Your task to perform on an android device: open app "Life360: Find Family & Friends" (install if not already installed) Image 0: 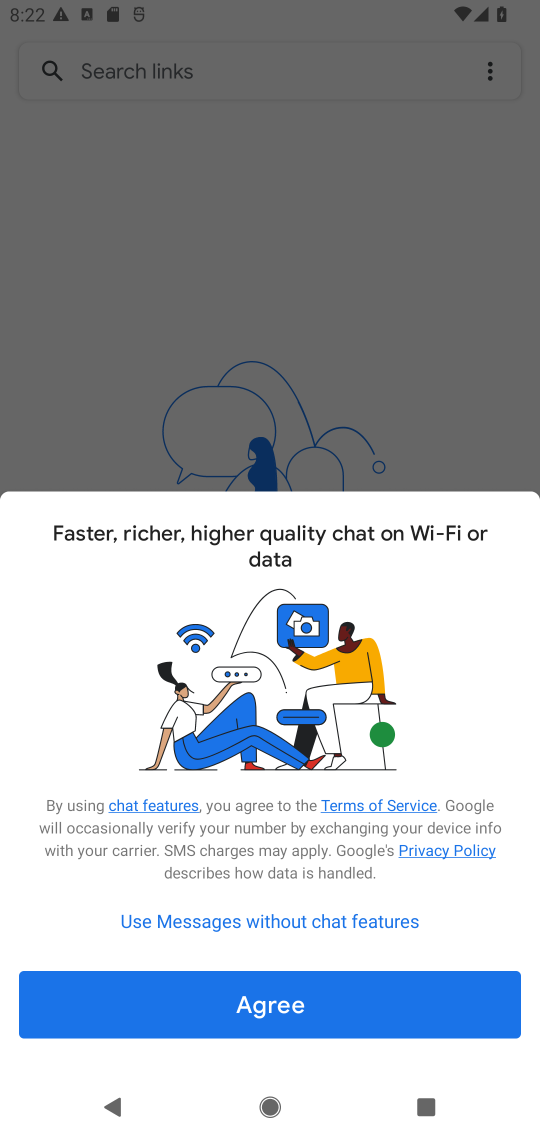
Step 0: press home button
Your task to perform on an android device: open app "Life360: Find Family & Friends" (install if not already installed) Image 1: 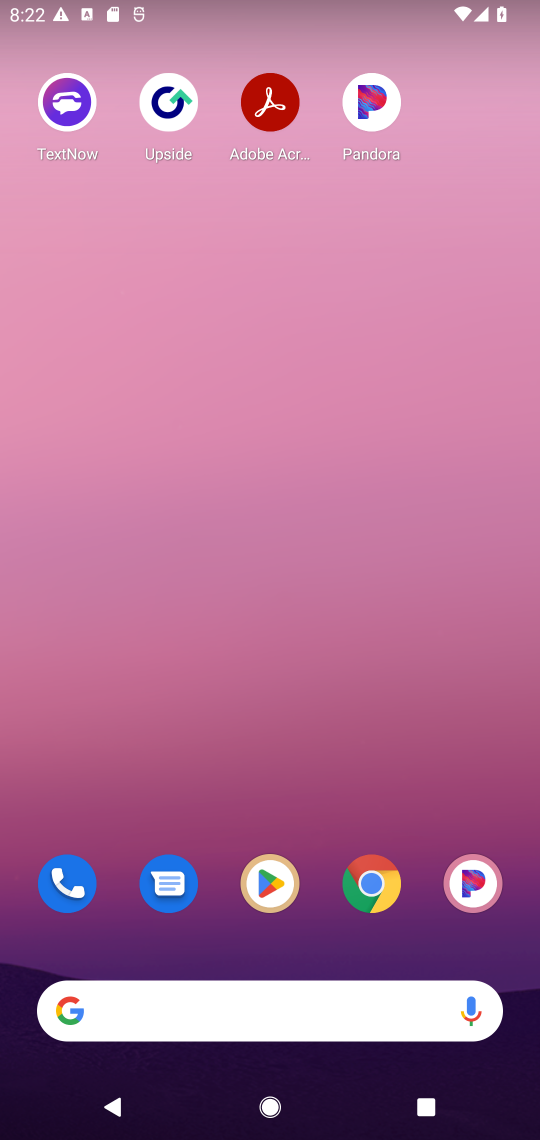
Step 1: drag from (324, 969) to (306, 210)
Your task to perform on an android device: open app "Life360: Find Family & Friends" (install if not already installed) Image 2: 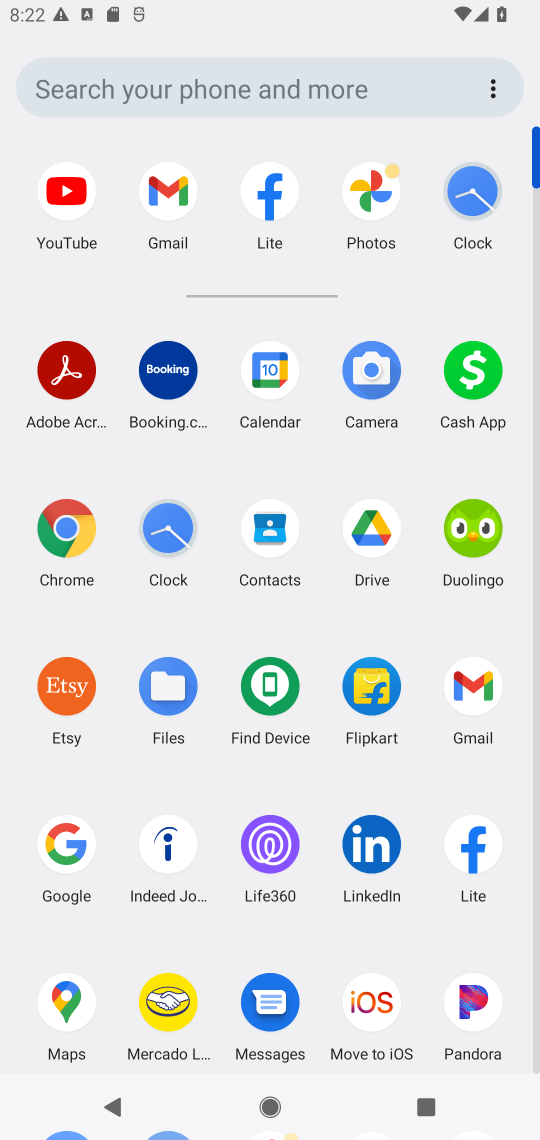
Step 2: drag from (300, 948) to (300, 439)
Your task to perform on an android device: open app "Life360: Find Family & Friends" (install if not already installed) Image 3: 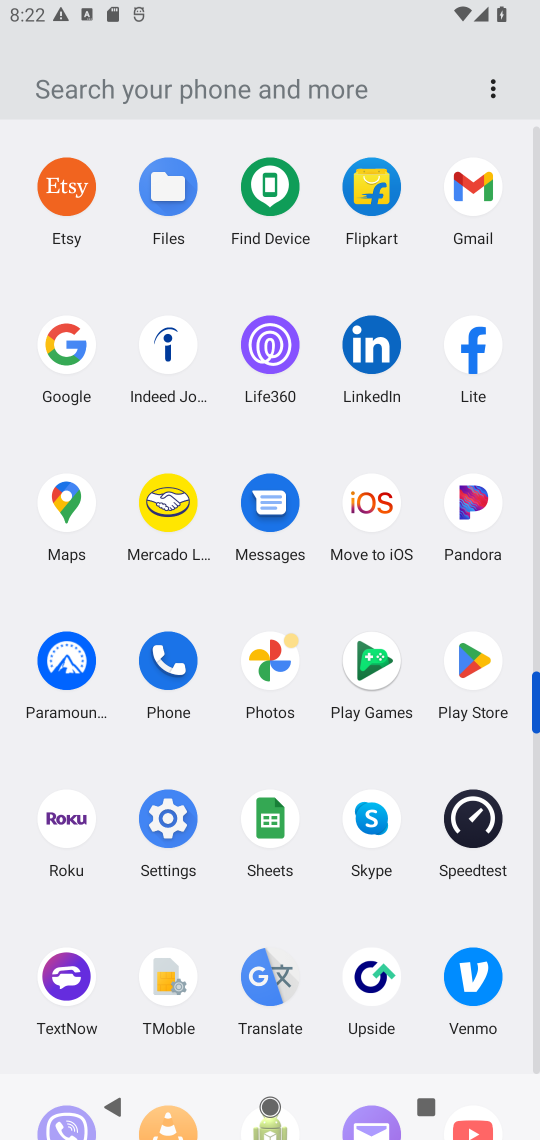
Step 3: click (470, 653)
Your task to perform on an android device: open app "Life360: Find Family & Friends" (install if not already installed) Image 4: 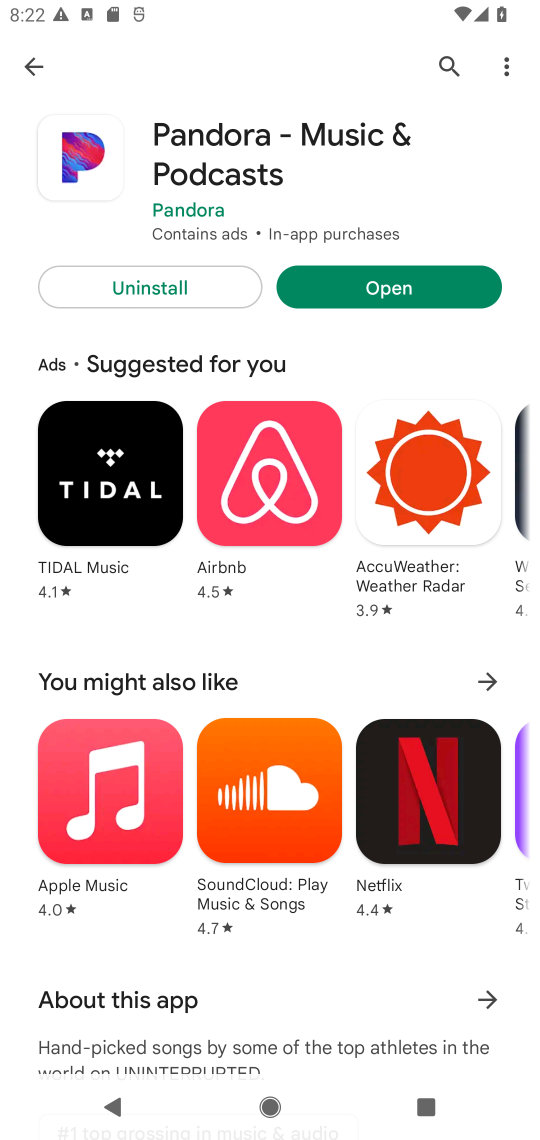
Step 4: click (441, 53)
Your task to perform on an android device: open app "Life360: Find Family & Friends" (install if not already installed) Image 5: 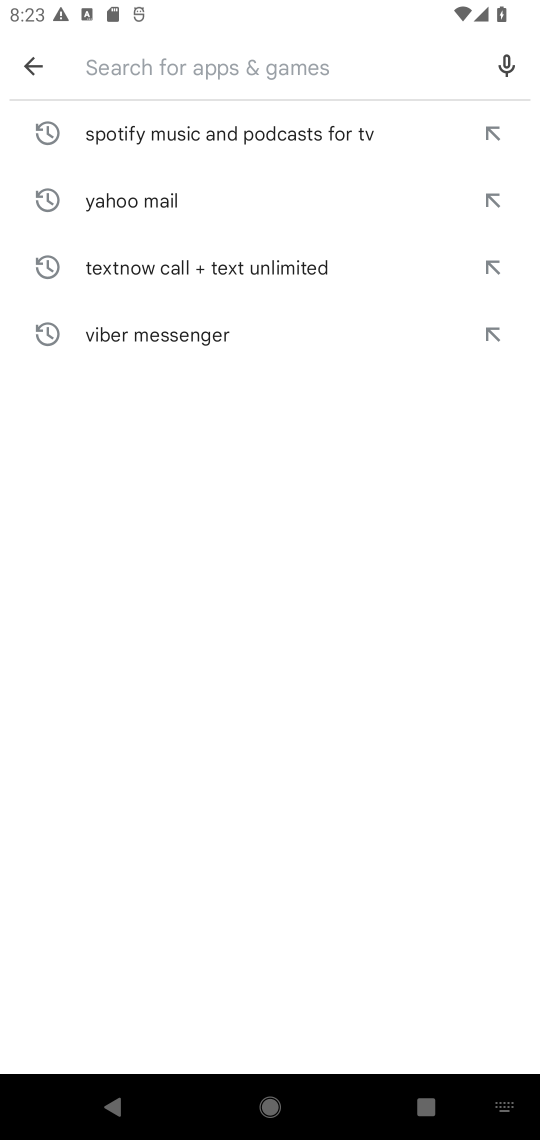
Step 5: type "Life360: Find Family & Friends"
Your task to perform on an android device: open app "Life360: Find Family & Friends" (install if not already installed) Image 6: 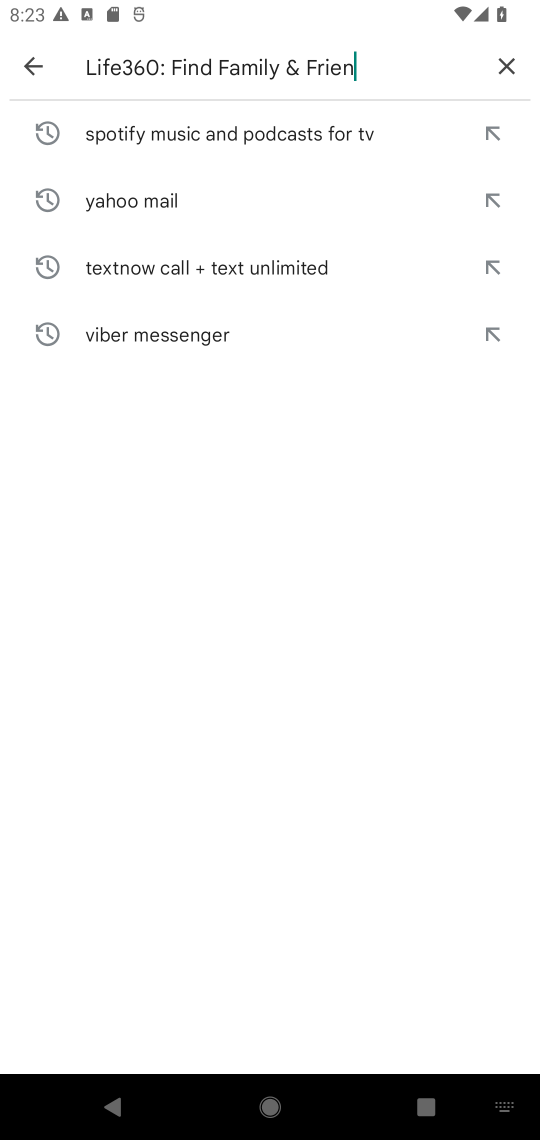
Step 6: type ""
Your task to perform on an android device: open app "Life360: Find Family & Friends" (install if not already installed) Image 7: 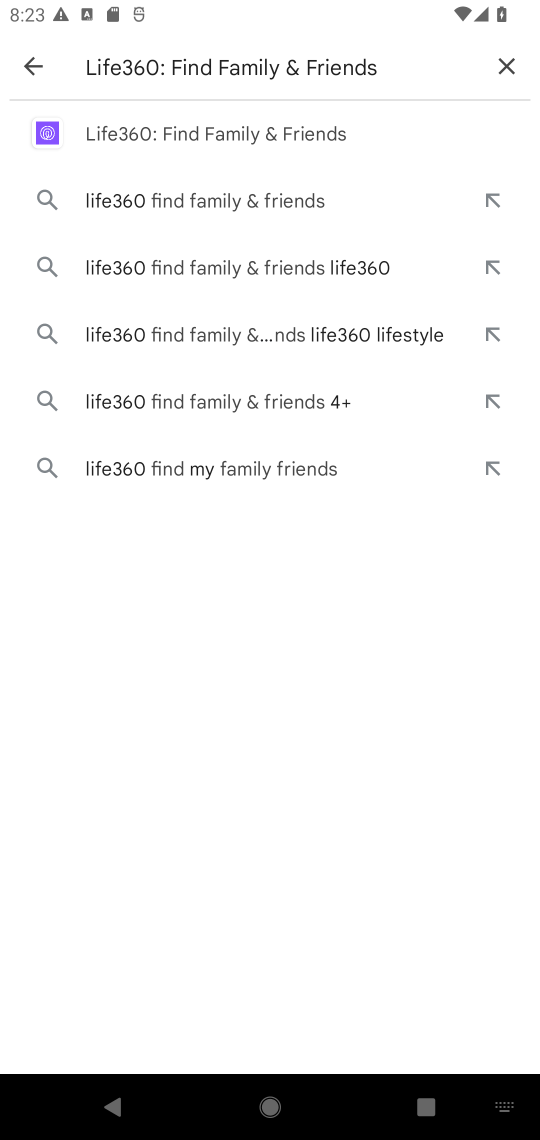
Step 7: click (202, 124)
Your task to perform on an android device: open app "Life360: Find Family & Friends" (install if not already installed) Image 8: 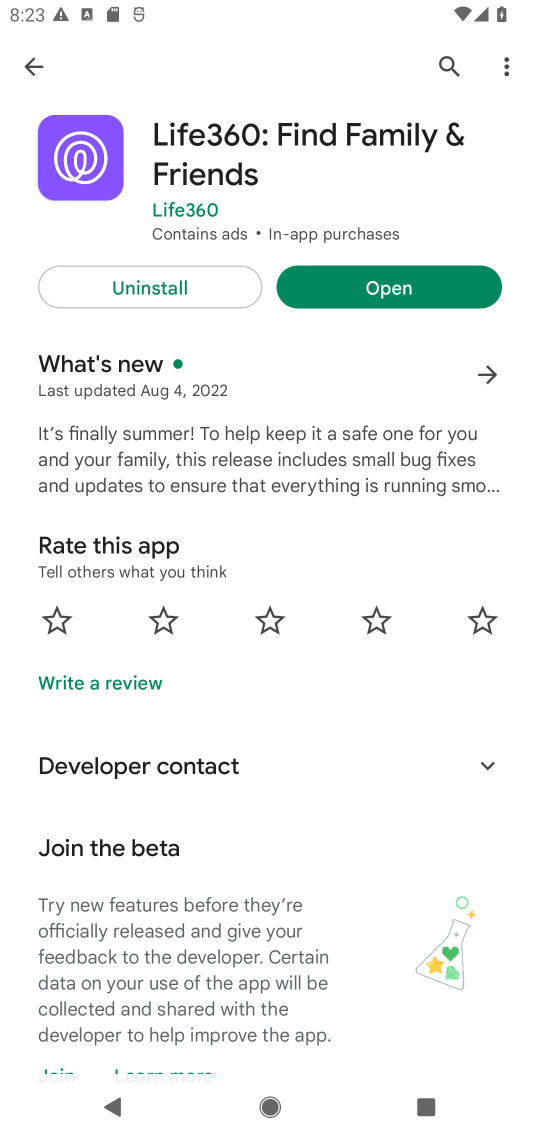
Step 8: click (391, 293)
Your task to perform on an android device: open app "Life360: Find Family & Friends" (install if not already installed) Image 9: 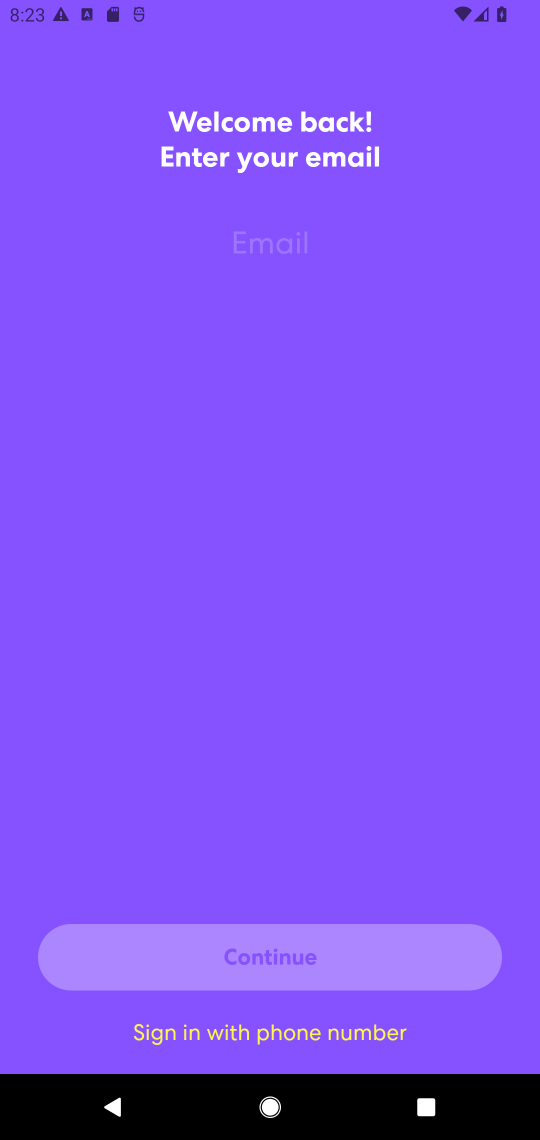
Step 9: task complete